Your task to perform on an android device: Search for seafood restaurants on Google Maps Image 0: 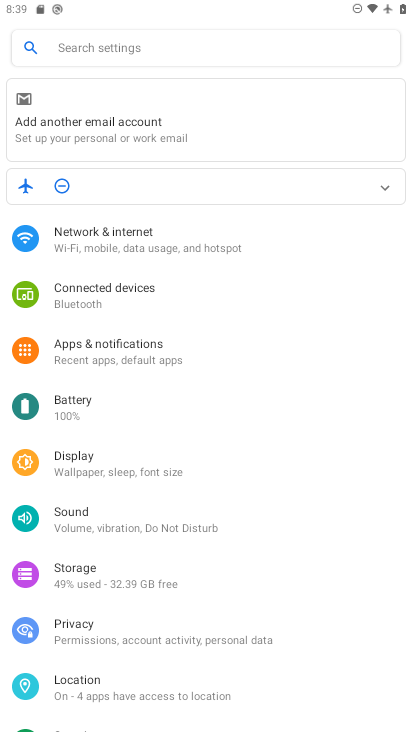
Step 0: press home button
Your task to perform on an android device: Search for seafood restaurants on Google Maps Image 1: 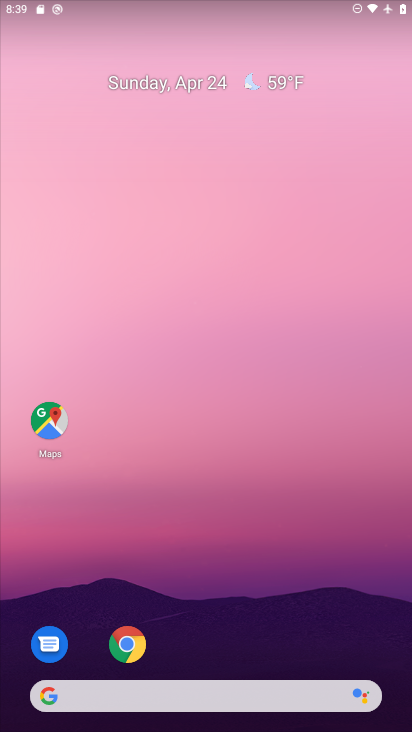
Step 1: drag from (214, 651) to (203, 47)
Your task to perform on an android device: Search for seafood restaurants on Google Maps Image 2: 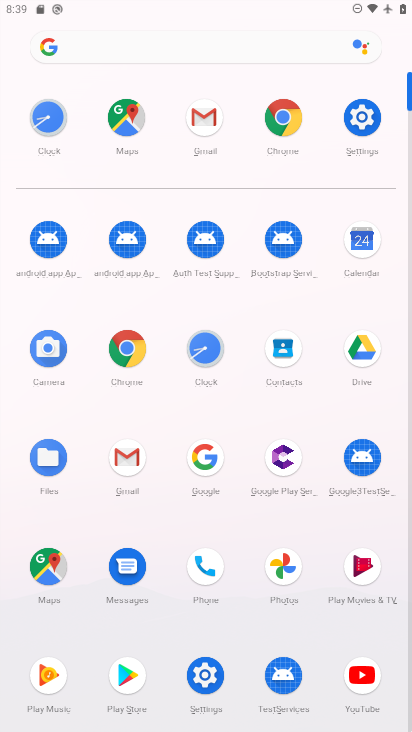
Step 2: click (46, 565)
Your task to perform on an android device: Search for seafood restaurants on Google Maps Image 3: 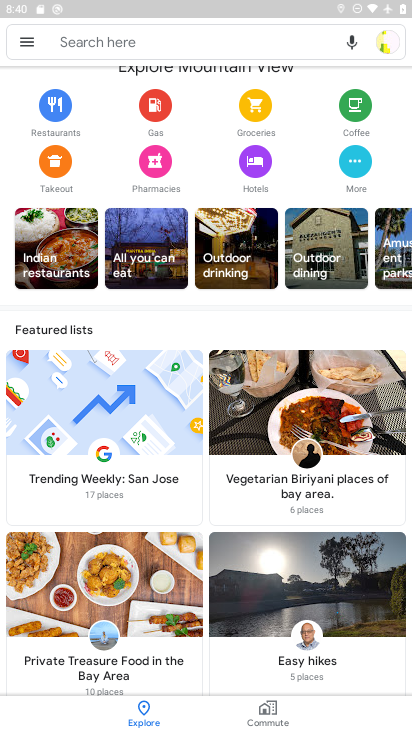
Step 3: click (111, 31)
Your task to perform on an android device: Search for seafood restaurants on Google Maps Image 4: 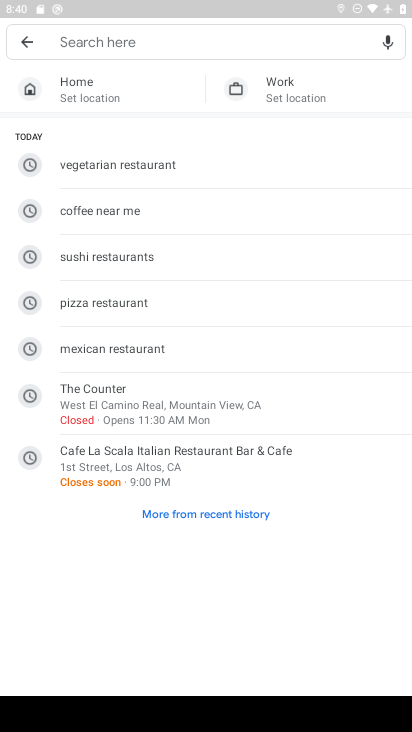
Step 4: click (115, 42)
Your task to perform on an android device: Search for seafood restaurants on Google Maps Image 5: 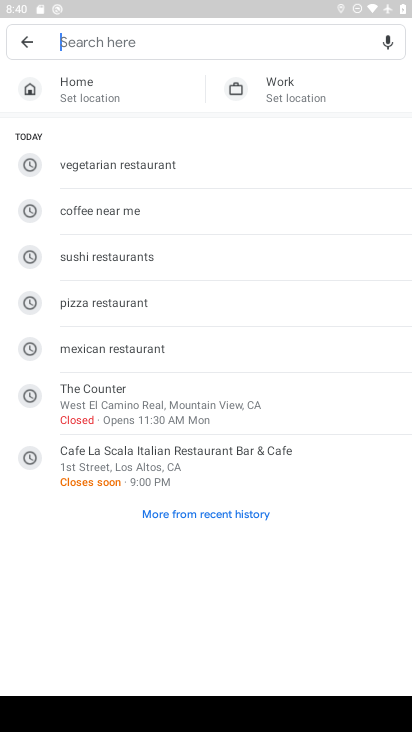
Step 5: type "seafood"
Your task to perform on an android device: Search for seafood restaurants on Google Maps Image 6: 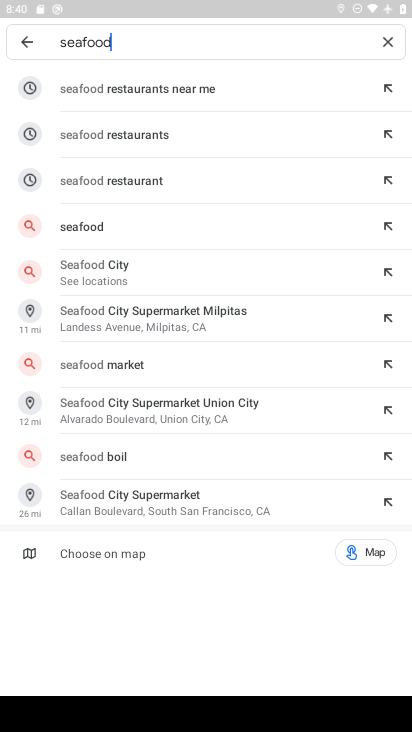
Step 6: click (144, 137)
Your task to perform on an android device: Search for seafood restaurants on Google Maps Image 7: 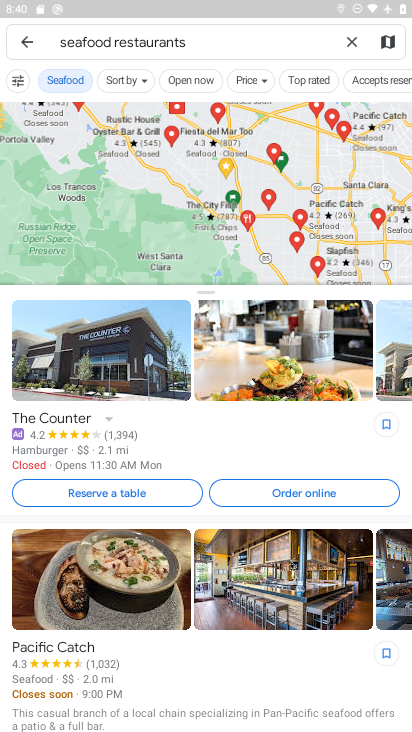
Step 7: task complete